Your task to perform on an android device: What's the top post on reddit right now? Image 0: 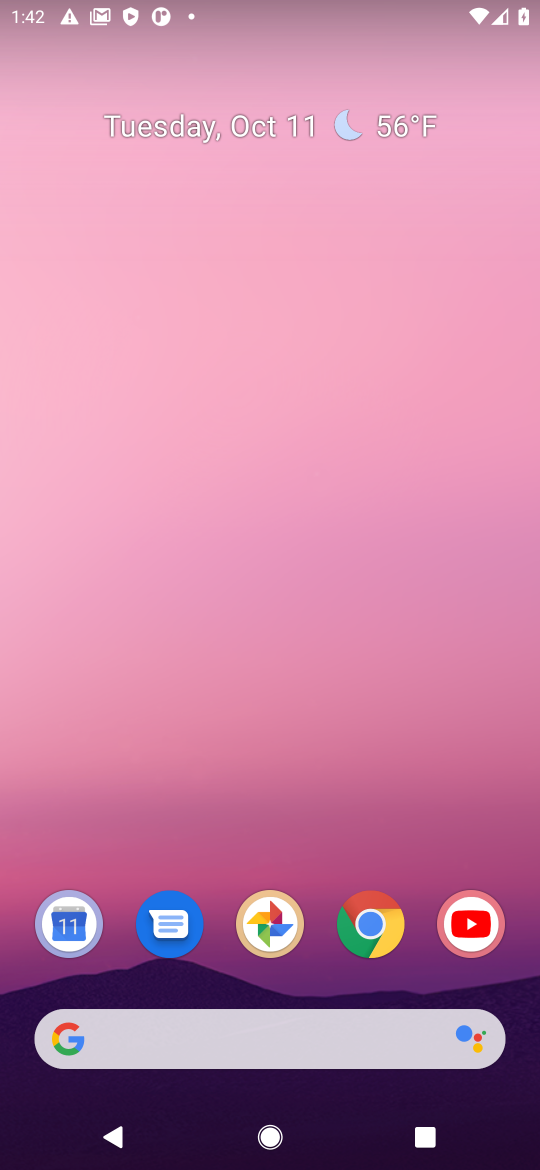
Step 0: drag from (332, 1011) to (341, 160)
Your task to perform on an android device: What's the top post on reddit right now? Image 1: 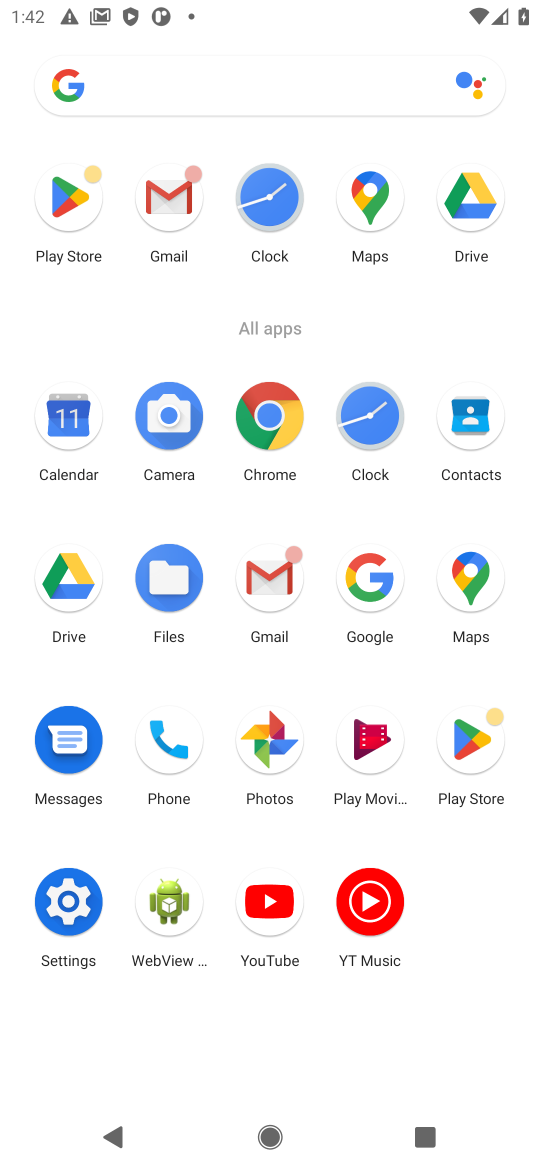
Step 1: click (373, 573)
Your task to perform on an android device: What's the top post on reddit right now? Image 2: 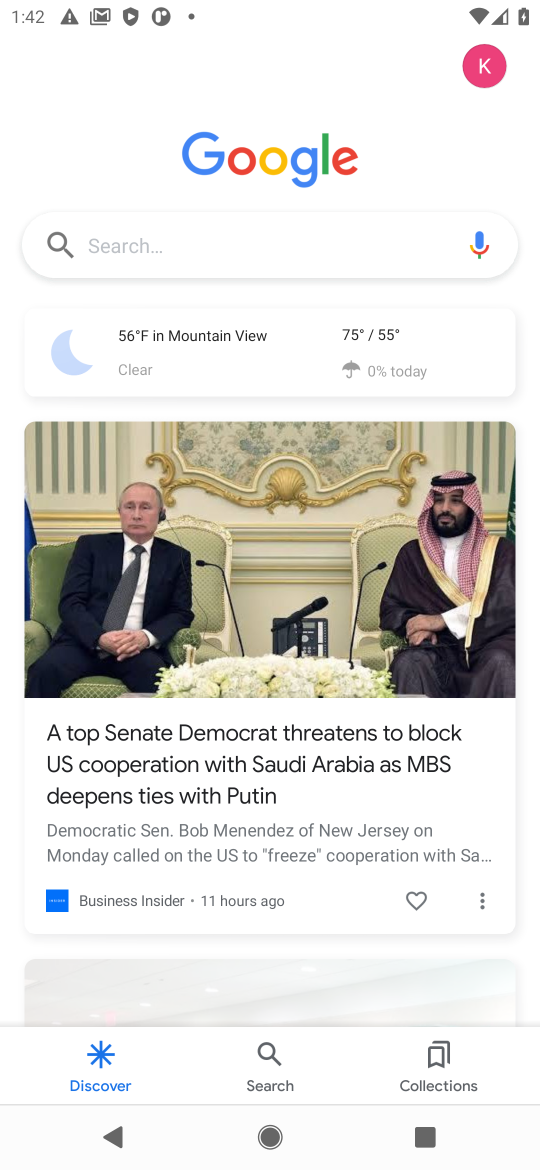
Step 2: click (241, 245)
Your task to perform on an android device: What's the top post on reddit right now? Image 3: 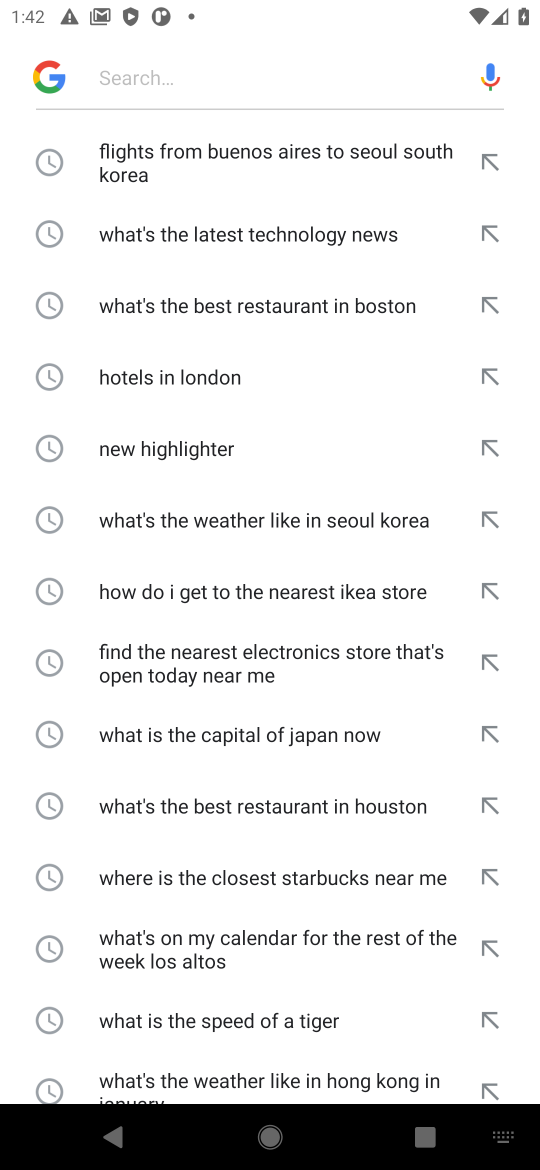
Step 3: type "What's the top post on reddit right now?"
Your task to perform on an android device: What's the top post on reddit right now? Image 4: 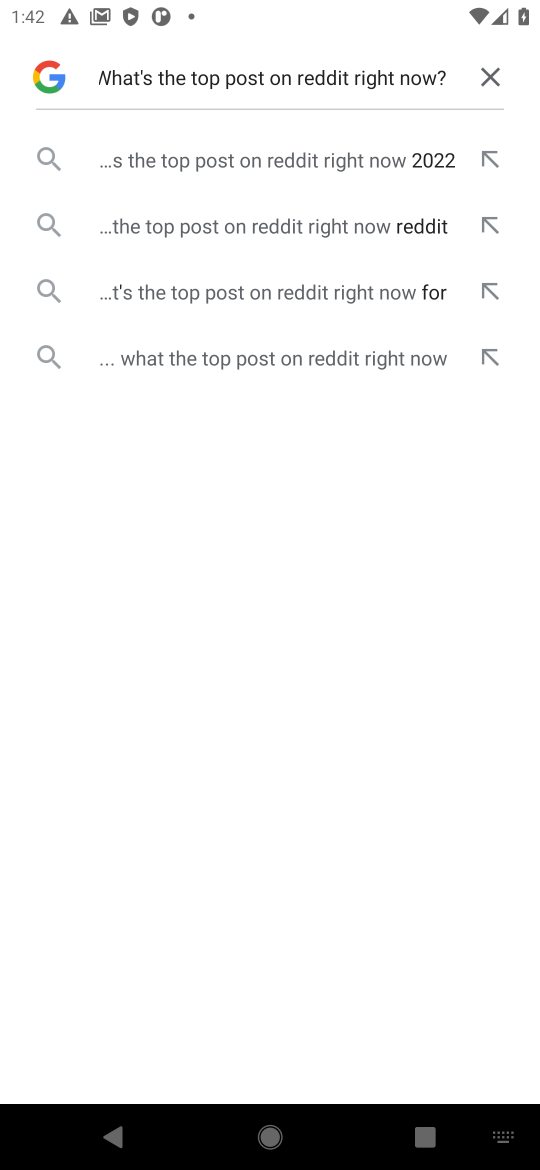
Step 4: type ""
Your task to perform on an android device: What's the top post on reddit right now? Image 5: 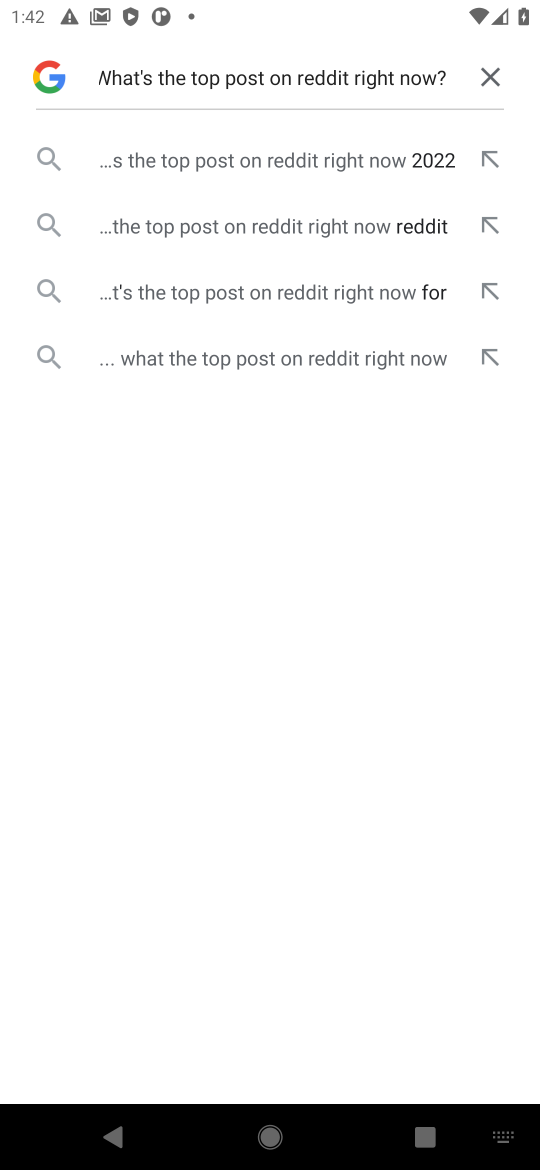
Step 5: click (268, 166)
Your task to perform on an android device: What's the top post on reddit right now? Image 6: 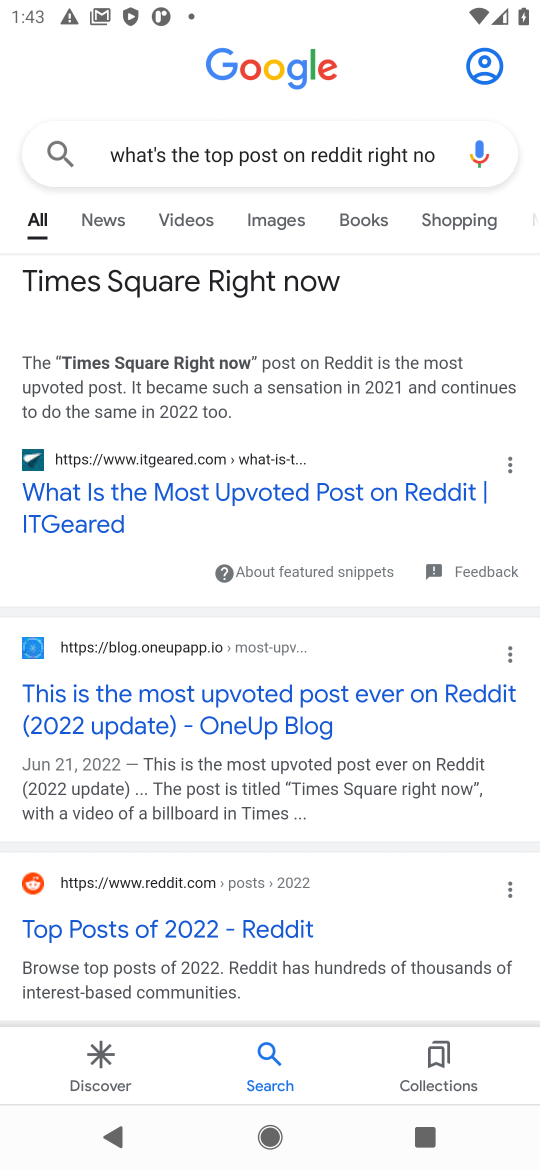
Step 6: task complete